Your task to perform on an android device: Go to battery settings Image 0: 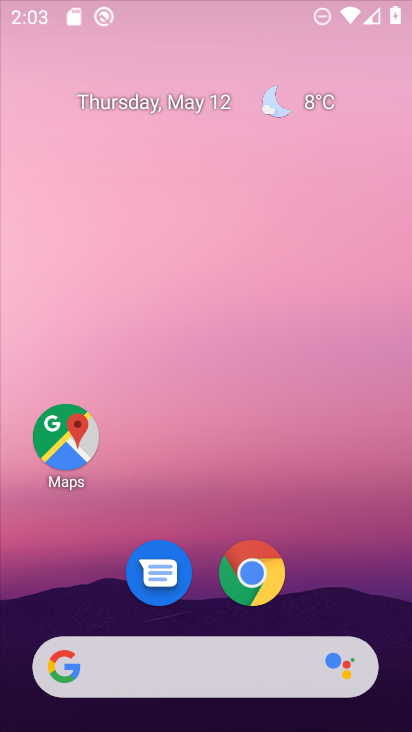
Step 0: drag from (374, 691) to (196, 46)
Your task to perform on an android device: Go to battery settings Image 1: 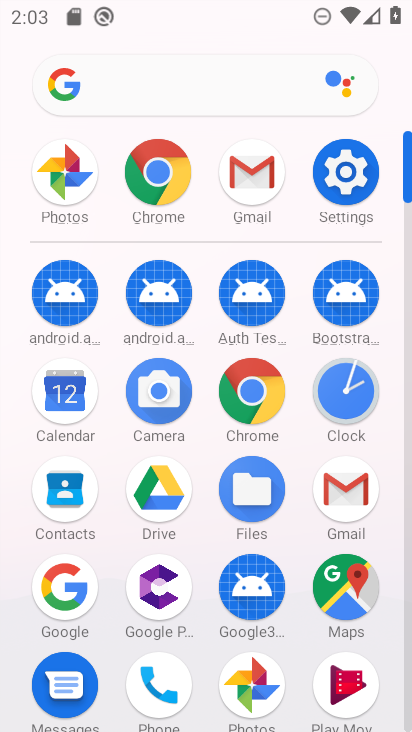
Step 1: click (340, 163)
Your task to perform on an android device: Go to battery settings Image 2: 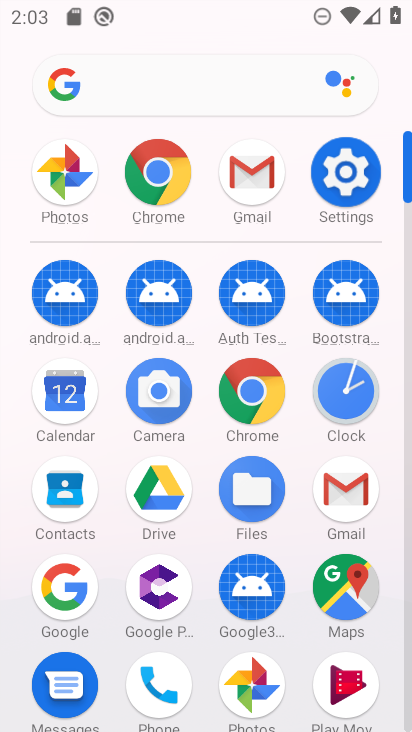
Step 2: click (350, 175)
Your task to perform on an android device: Go to battery settings Image 3: 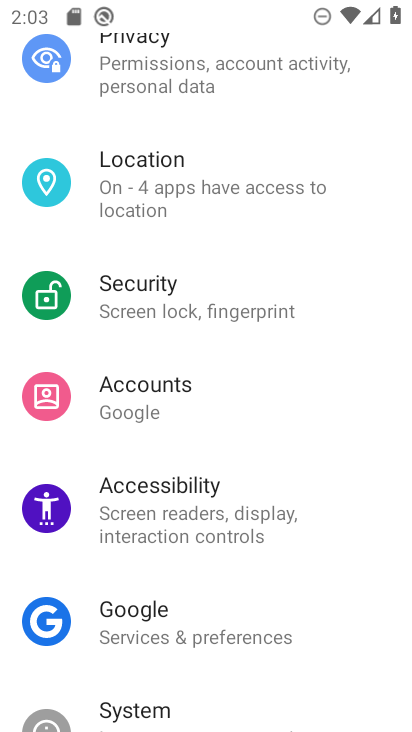
Step 3: drag from (164, 209) to (178, 529)
Your task to perform on an android device: Go to battery settings Image 4: 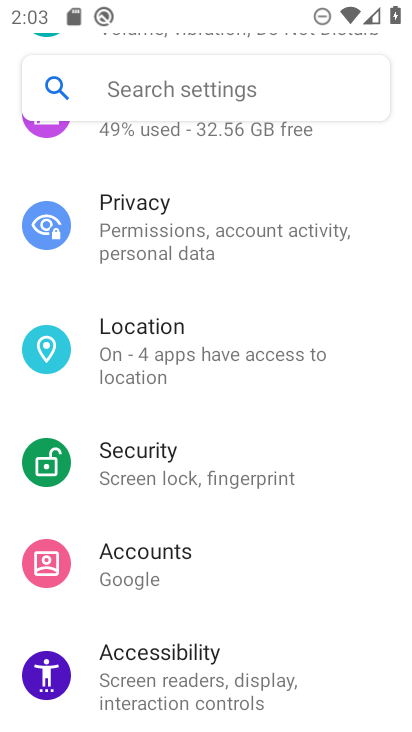
Step 4: drag from (191, 156) to (268, 479)
Your task to perform on an android device: Go to battery settings Image 5: 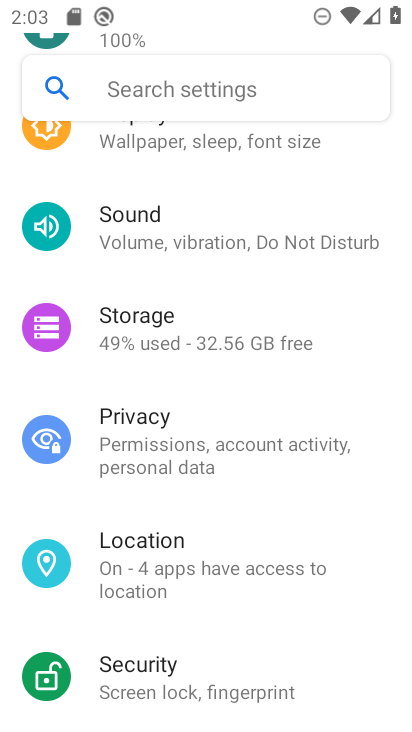
Step 5: drag from (145, 150) to (215, 408)
Your task to perform on an android device: Go to battery settings Image 6: 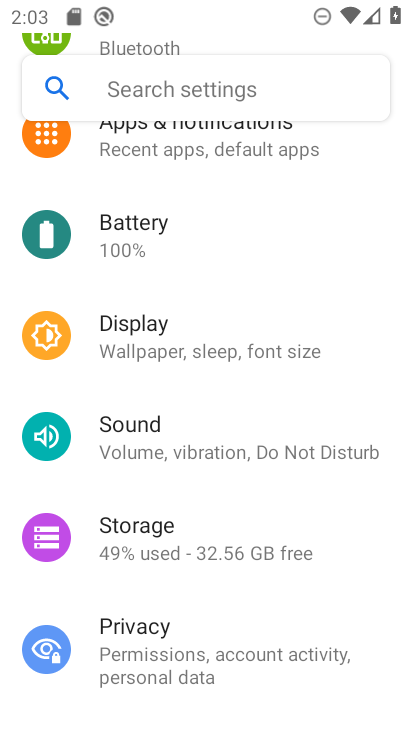
Step 6: drag from (182, 258) to (233, 445)
Your task to perform on an android device: Go to battery settings Image 7: 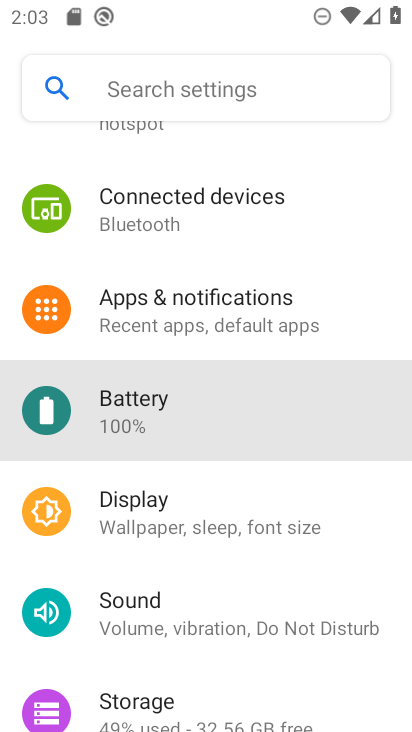
Step 7: drag from (90, 151) to (140, 435)
Your task to perform on an android device: Go to battery settings Image 8: 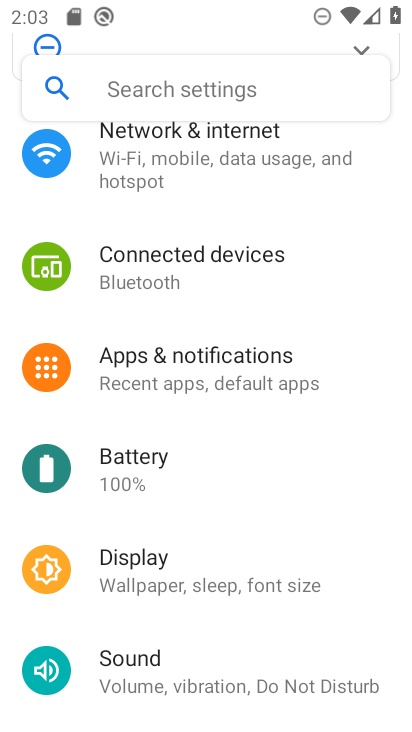
Step 8: click (120, 470)
Your task to perform on an android device: Go to battery settings Image 9: 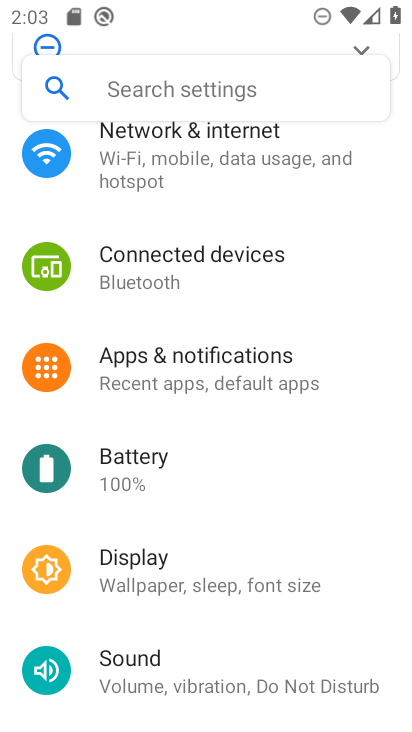
Step 9: click (122, 470)
Your task to perform on an android device: Go to battery settings Image 10: 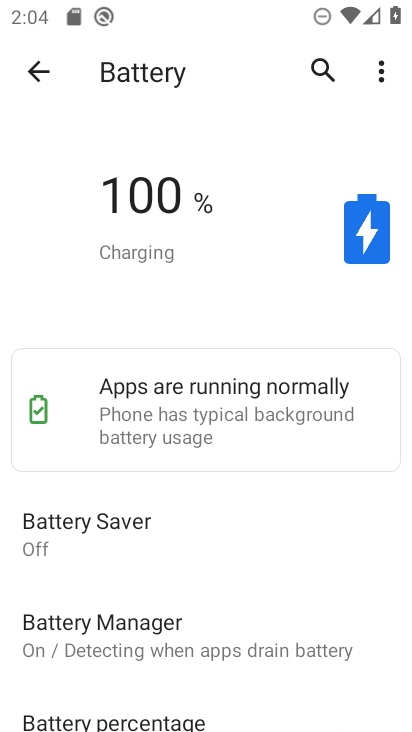
Step 10: task complete